Your task to perform on an android device: see tabs open on other devices in the chrome app Image 0: 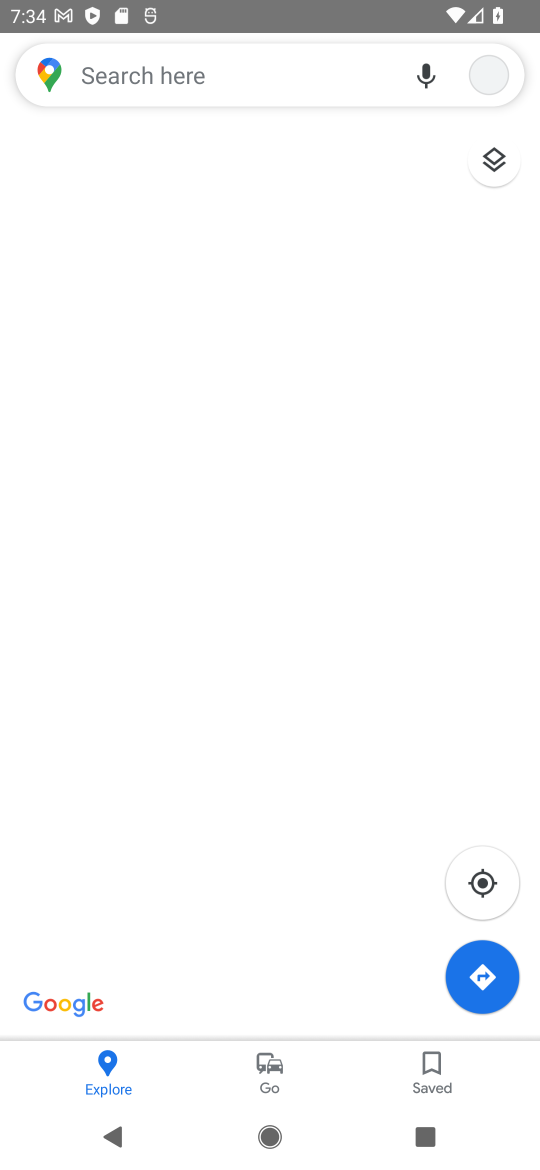
Step 0: click (481, 957)
Your task to perform on an android device: see tabs open on other devices in the chrome app Image 1: 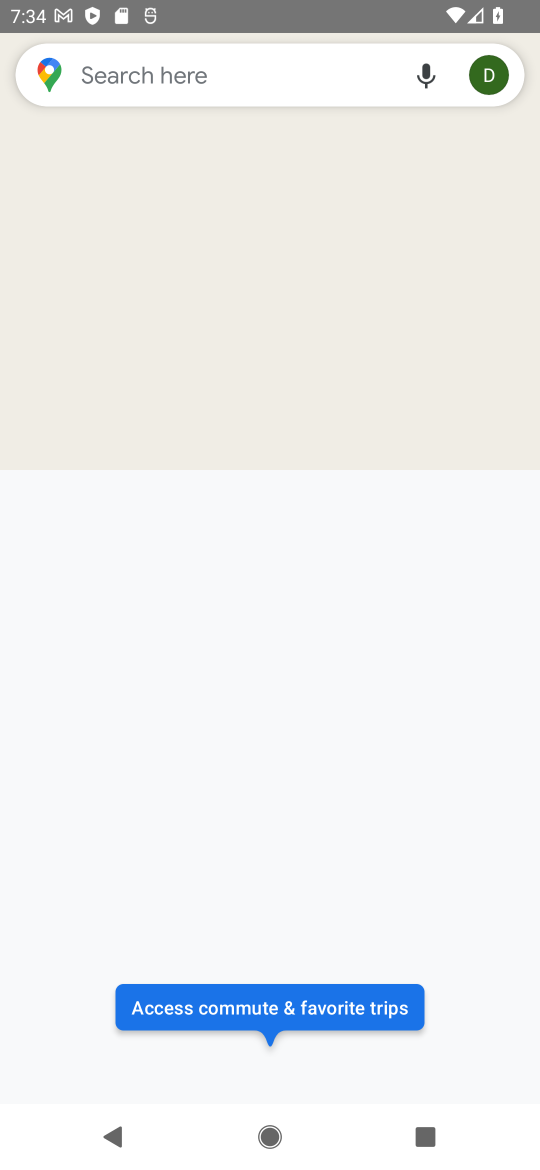
Step 1: press home button
Your task to perform on an android device: see tabs open on other devices in the chrome app Image 2: 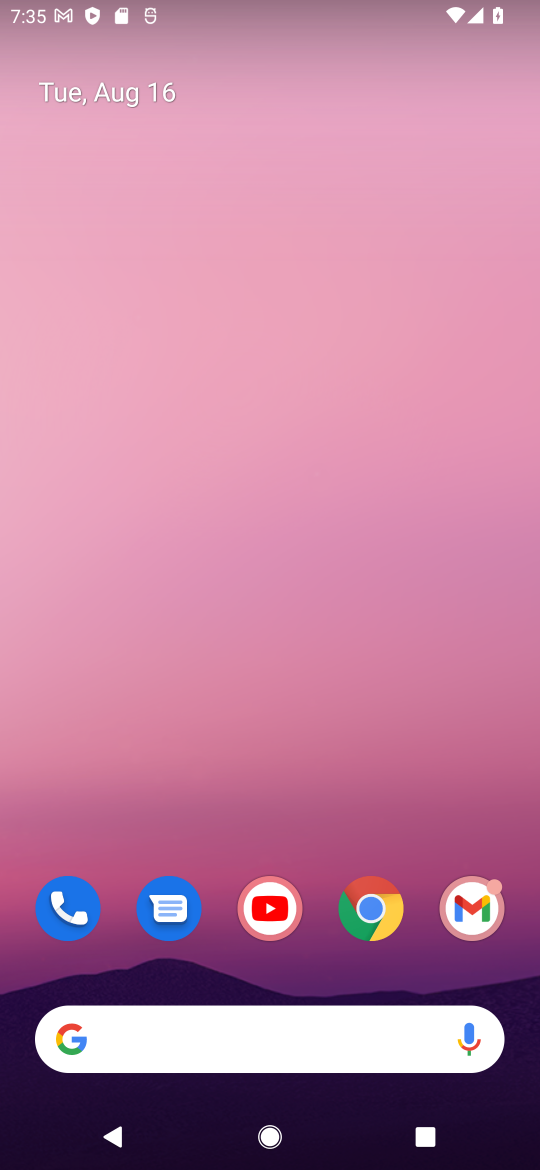
Step 2: drag from (239, 835) to (268, 130)
Your task to perform on an android device: see tabs open on other devices in the chrome app Image 3: 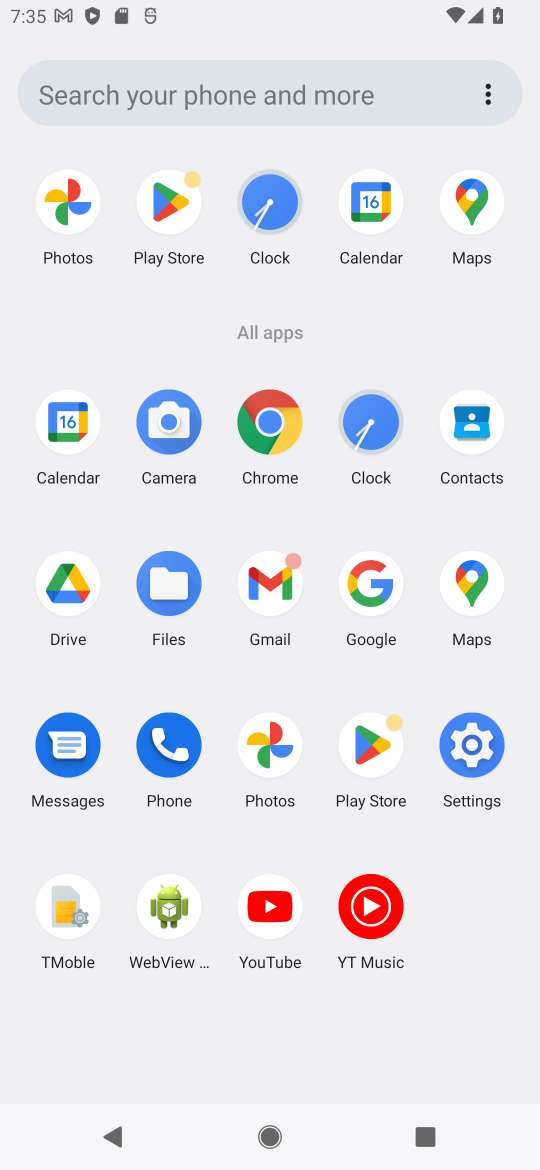
Step 3: click (269, 426)
Your task to perform on an android device: see tabs open on other devices in the chrome app Image 4: 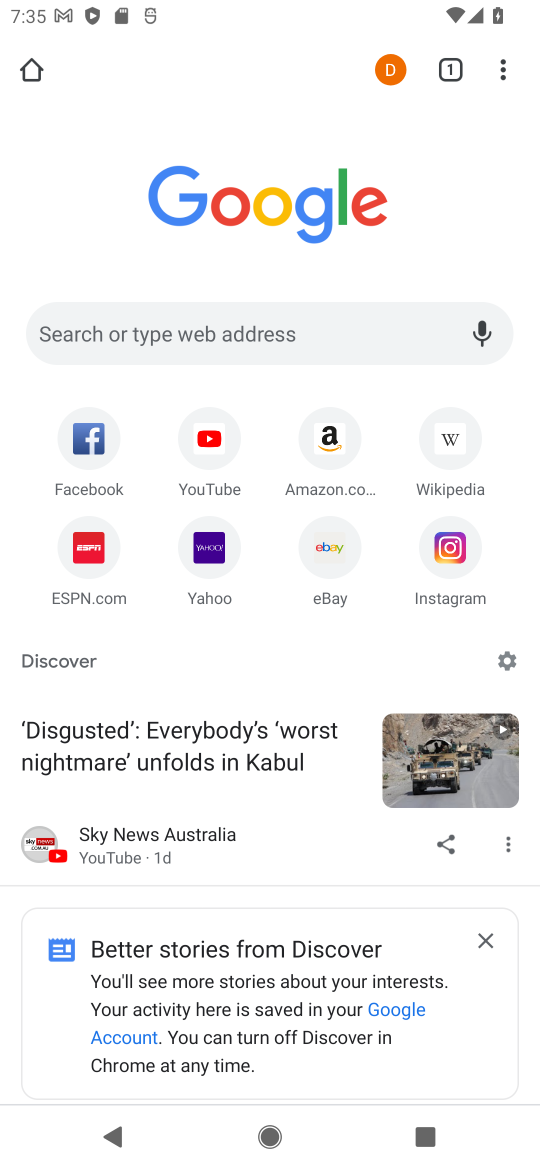
Step 4: click (505, 71)
Your task to perform on an android device: see tabs open on other devices in the chrome app Image 5: 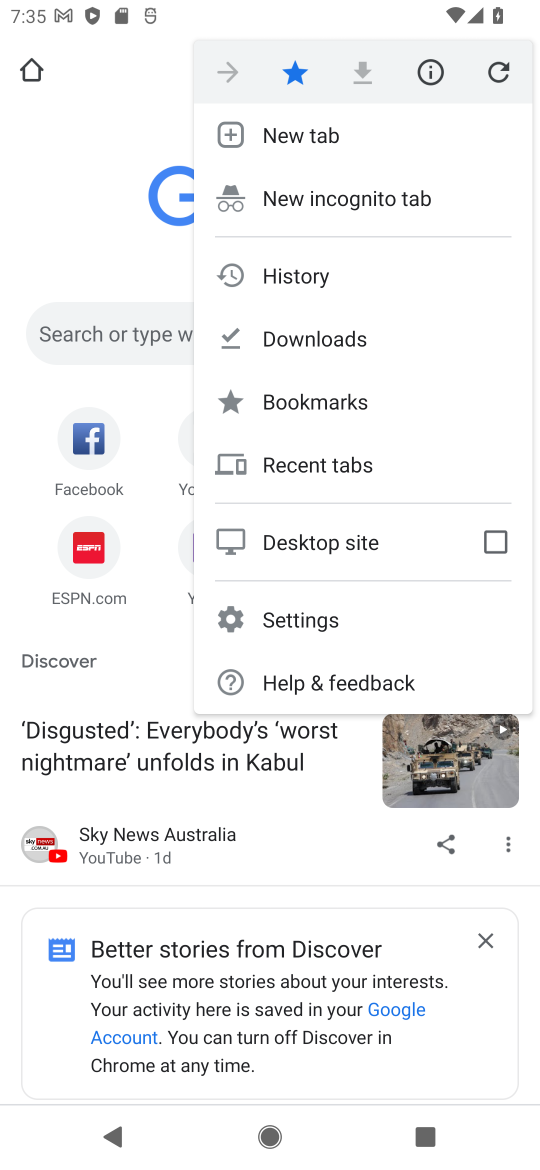
Step 5: click (310, 475)
Your task to perform on an android device: see tabs open on other devices in the chrome app Image 6: 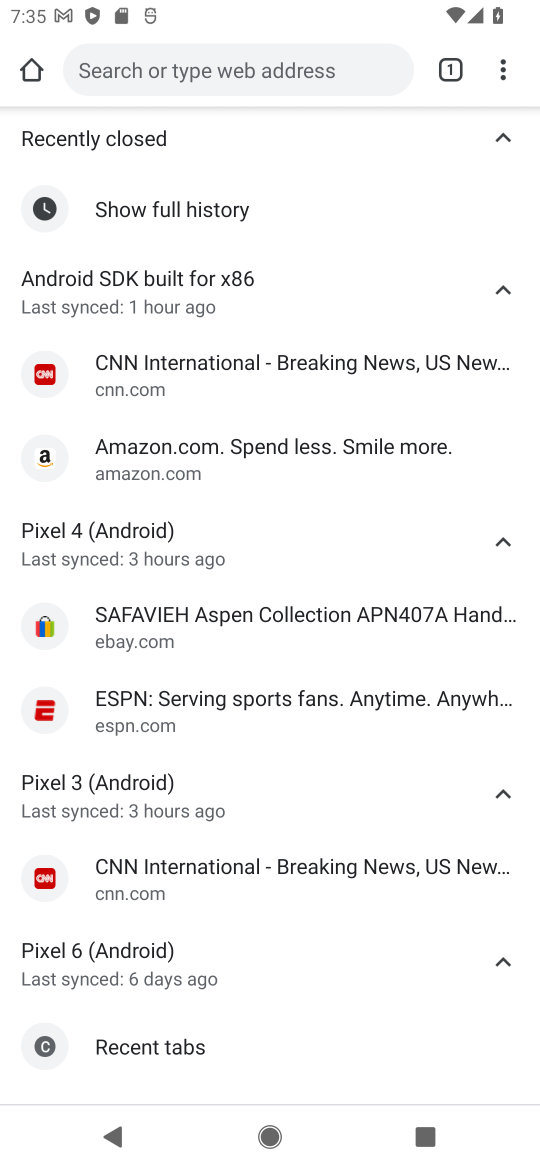
Step 6: task complete